Your task to perform on an android device: What's the weather today? Image 0: 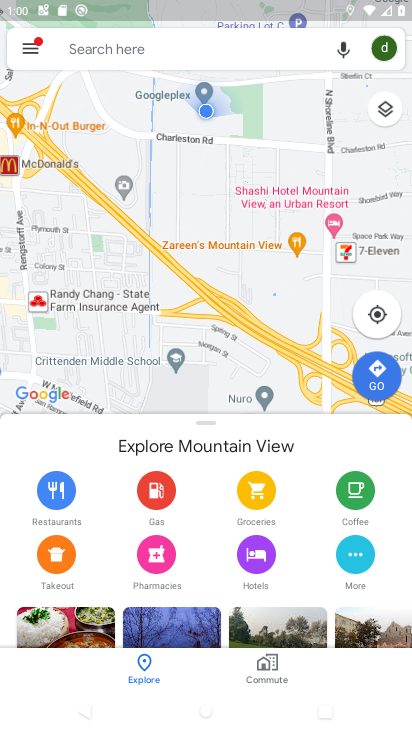
Step 0: press home button
Your task to perform on an android device: What's the weather today? Image 1: 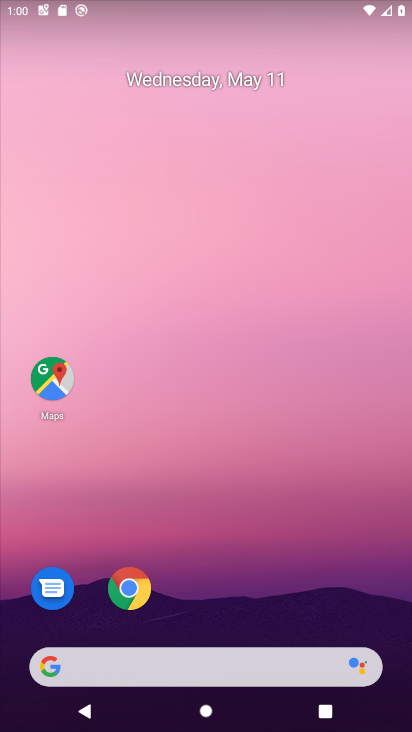
Step 1: drag from (149, 649) to (250, 238)
Your task to perform on an android device: What's the weather today? Image 2: 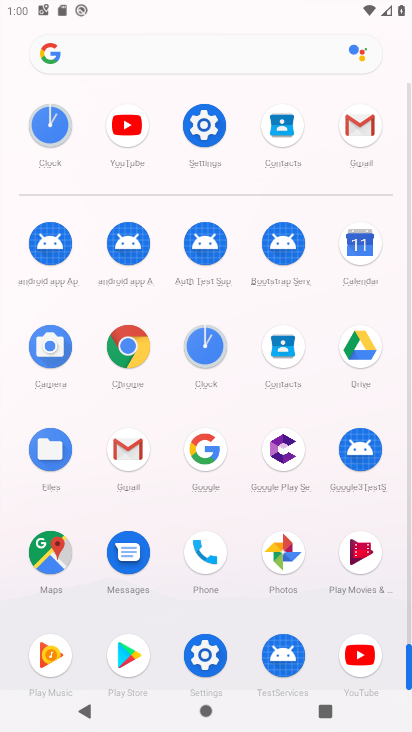
Step 2: click (205, 466)
Your task to perform on an android device: What's the weather today? Image 3: 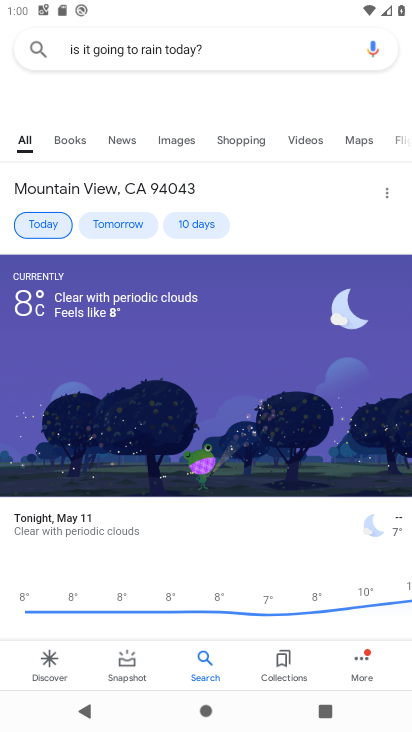
Step 3: task complete